Your task to perform on an android device: change the clock display to digital Image 0: 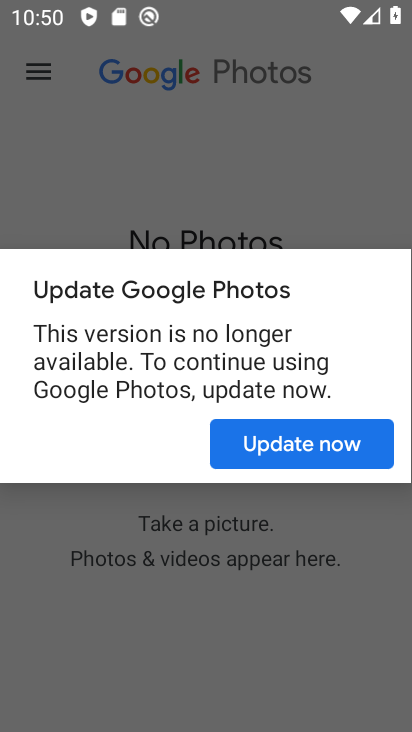
Step 0: press home button
Your task to perform on an android device: change the clock display to digital Image 1: 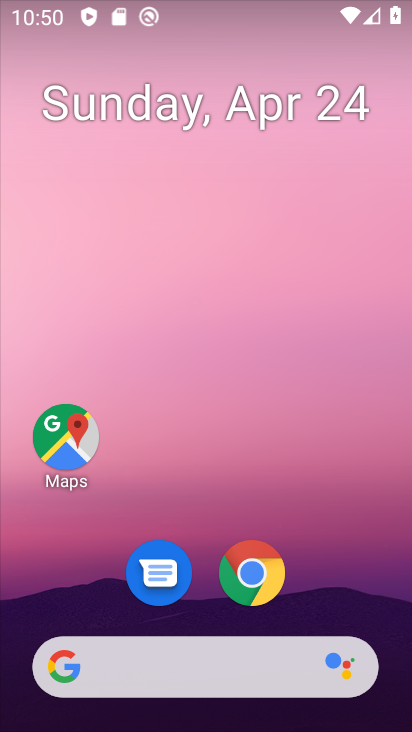
Step 1: drag from (334, 572) to (332, 15)
Your task to perform on an android device: change the clock display to digital Image 2: 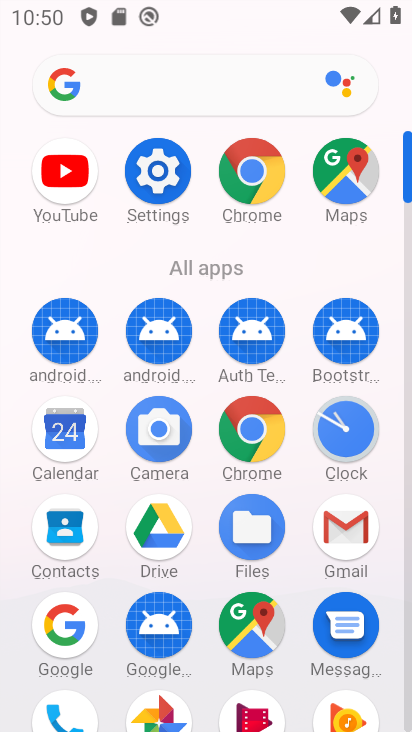
Step 2: click (328, 423)
Your task to perform on an android device: change the clock display to digital Image 3: 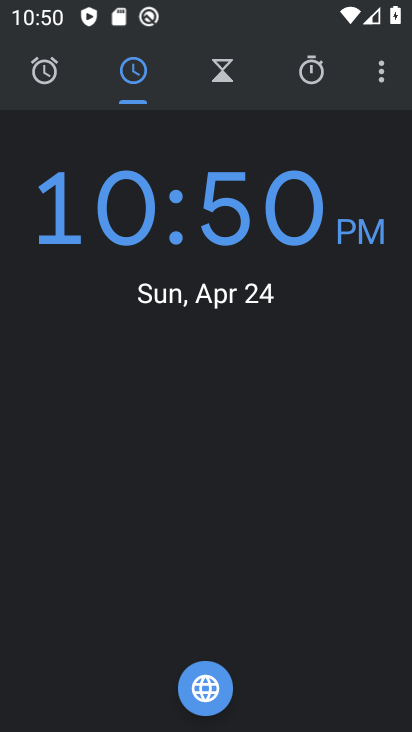
Step 3: click (388, 77)
Your task to perform on an android device: change the clock display to digital Image 4: 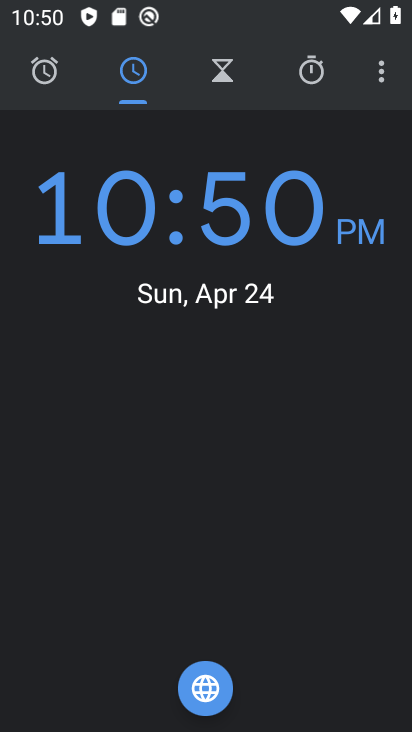
Step 4: click (379, 86)
Your task to perform on an android device: change the clock display to digital Image 5: 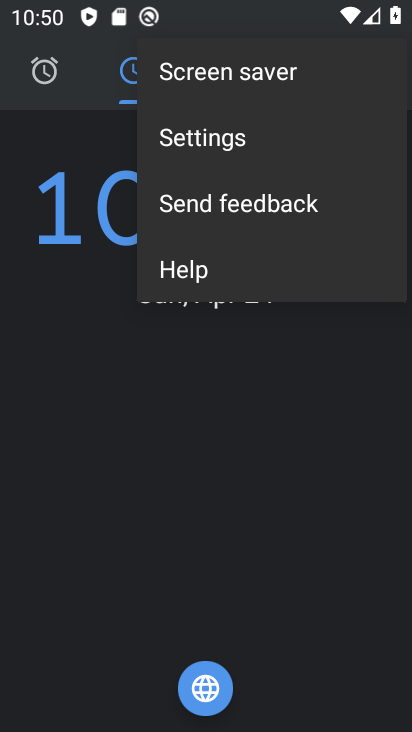
Step 5: click (304, 126)
Your task to perform on an android device: change the clock display to digital Image 6: 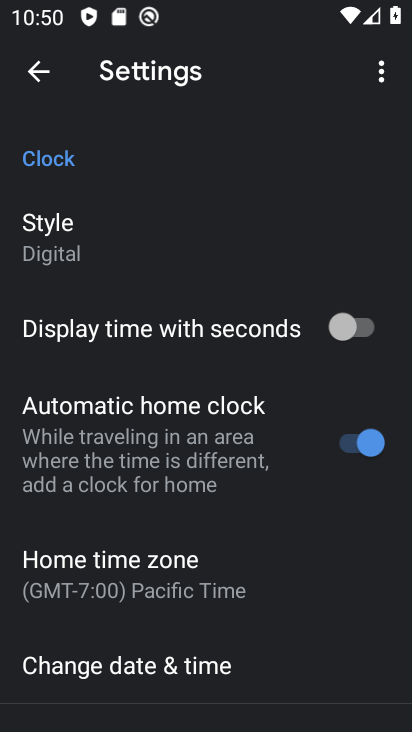
Step 6: click (78, 250)
Your task to perform on an android device: change the clock display to digital Image 7: 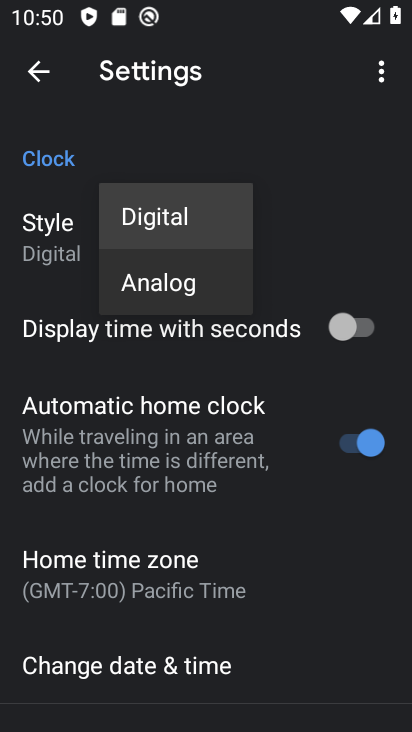
Step 7: click (214, 202)
Your task to perform on an android device: change the clock display to digital Image 8: 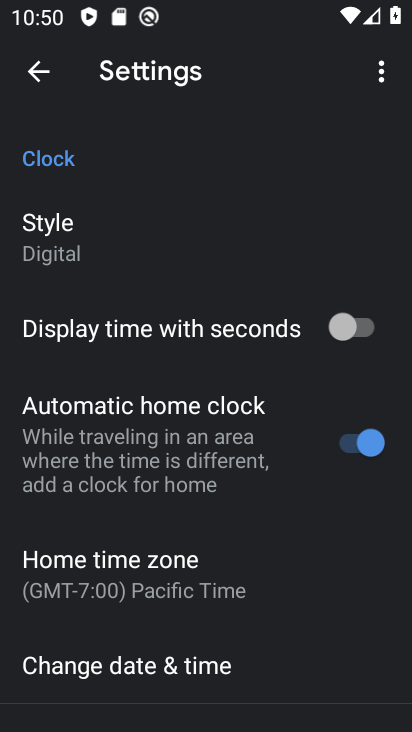
Step 8: task complete